Your task to perform on an android device: Empty the shopping cart on bestbuy.com. Search for macbook pro 15 inch on bestbuy.com, select the first entry, and add it to the cart. Image 0: 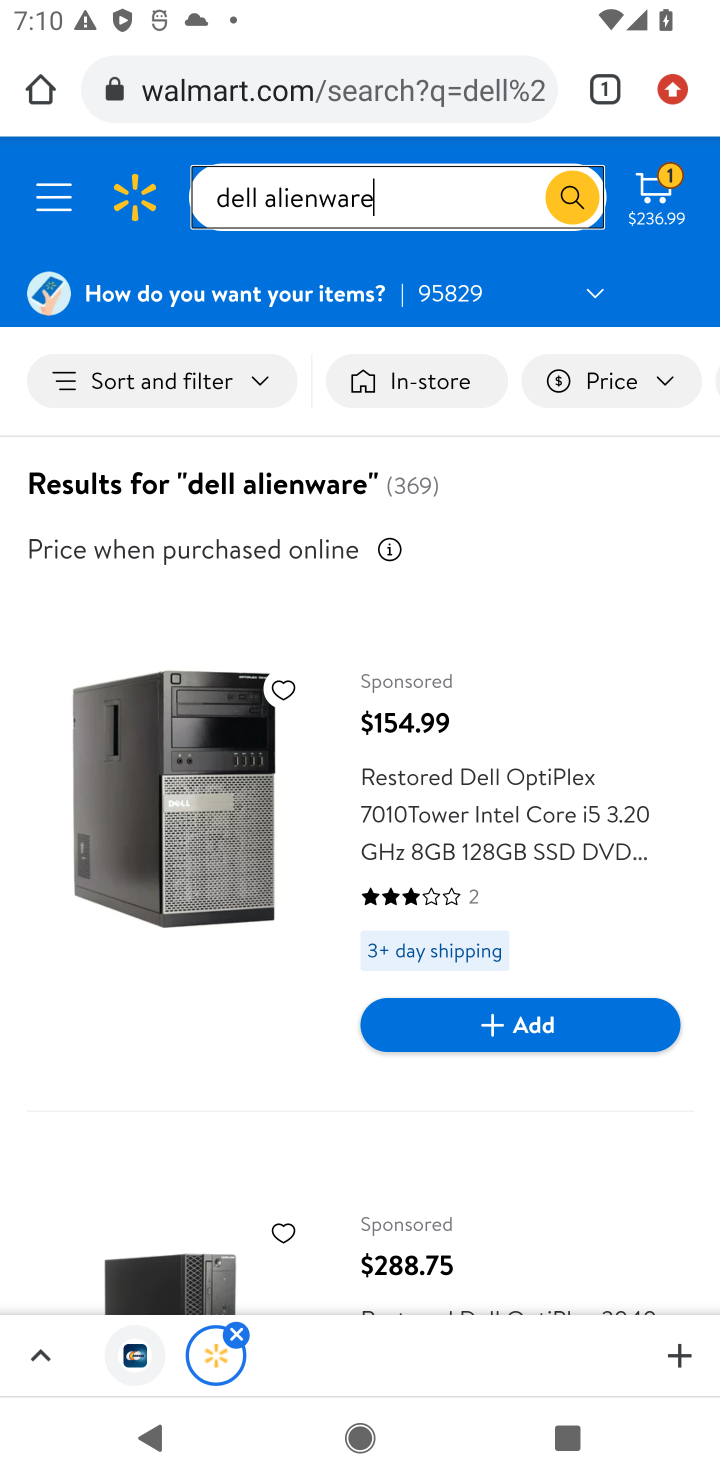
Step 0: click (290, 90)
Your task to perform on an android device: Empty the shopping cart on bestbuy.com. Search for macbook pro 15 inch on bestbuy.com, select the first entry, and add it to the cart. Image 1: 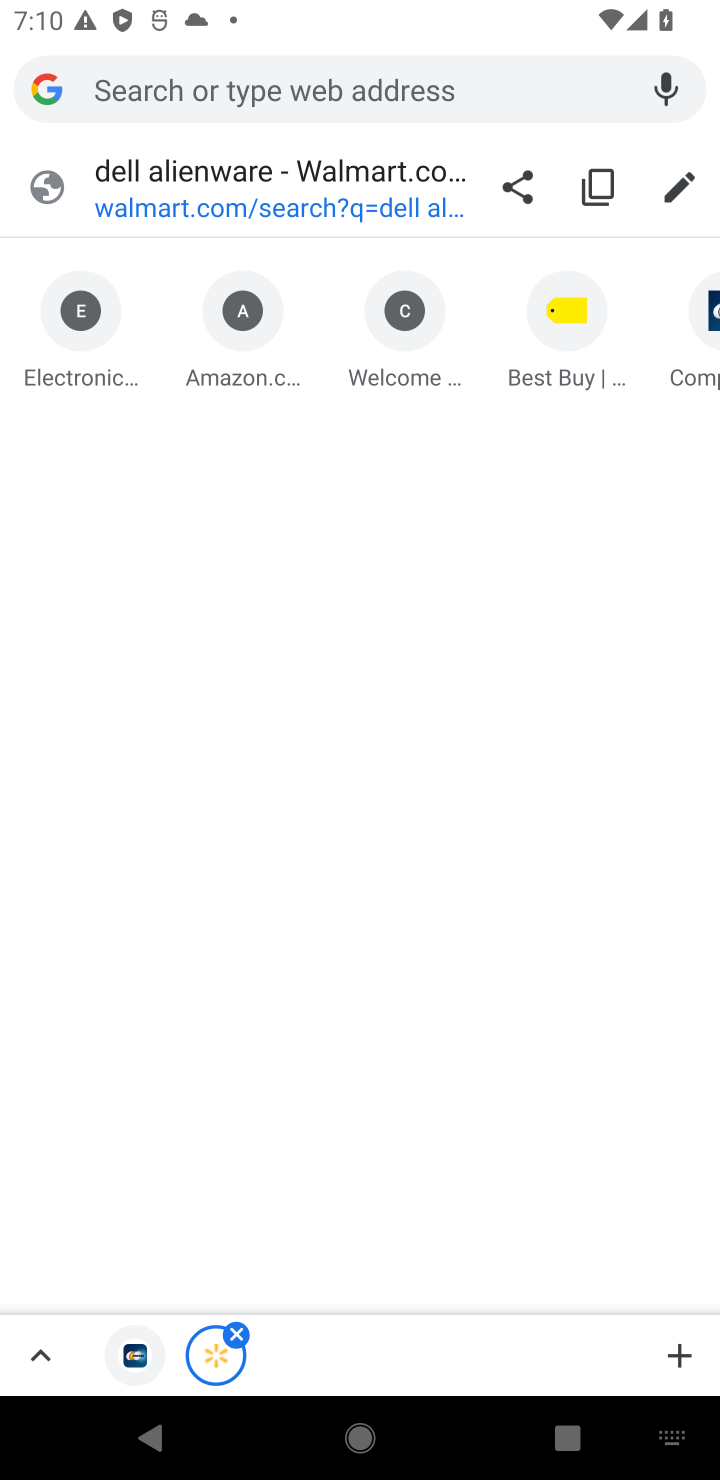
Step 1: click (530, 297)
Your task to perform on an android device: Empty the shopping cart on bestbuy.com. Search for macbook pro 15 inch on bestbuy.com, select the first entry, and add it to the cart. Image 2: 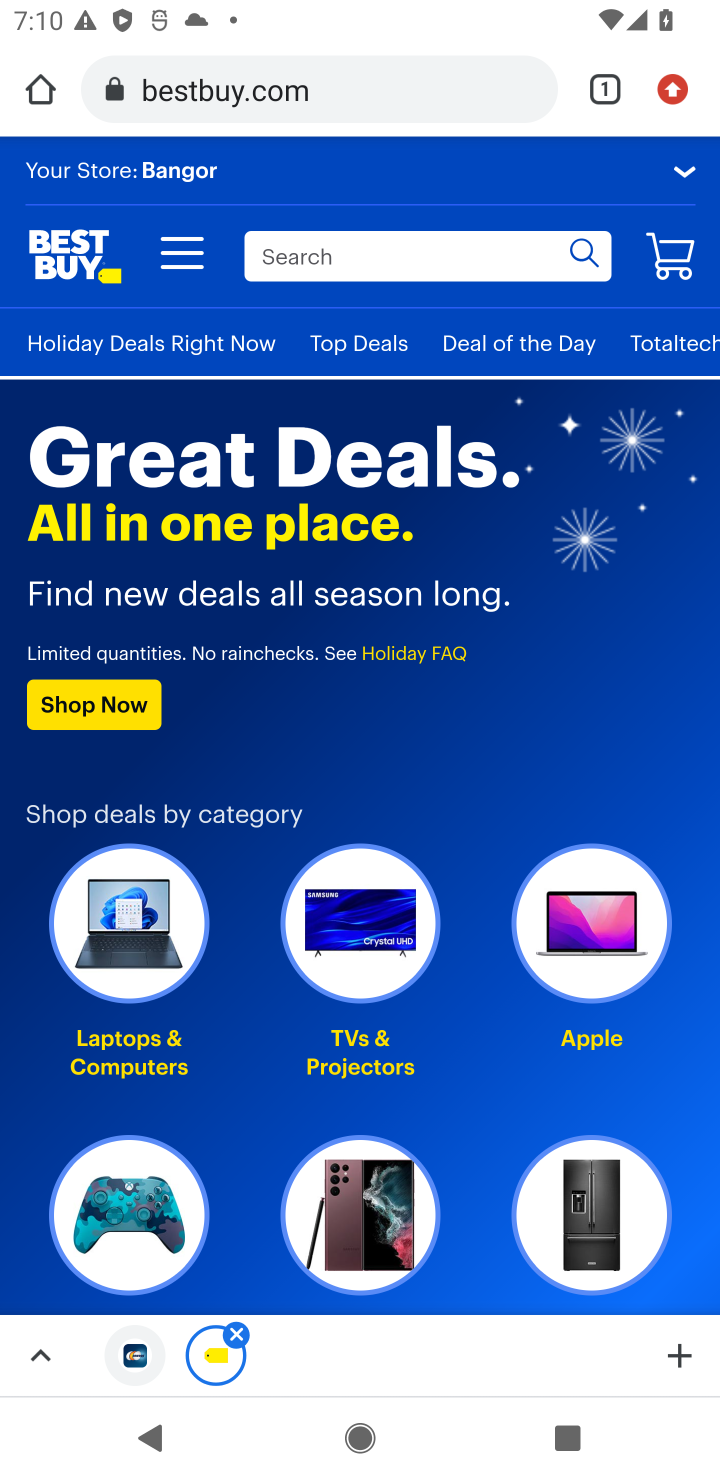
Step 2: click (677, 259)
Your task to perform on an android device: Empty the shopping cart on bestbuy.com. Search for macbook pro 15 inch on bestbuy.com, select the first entry, and add it to the cart. Image 3: 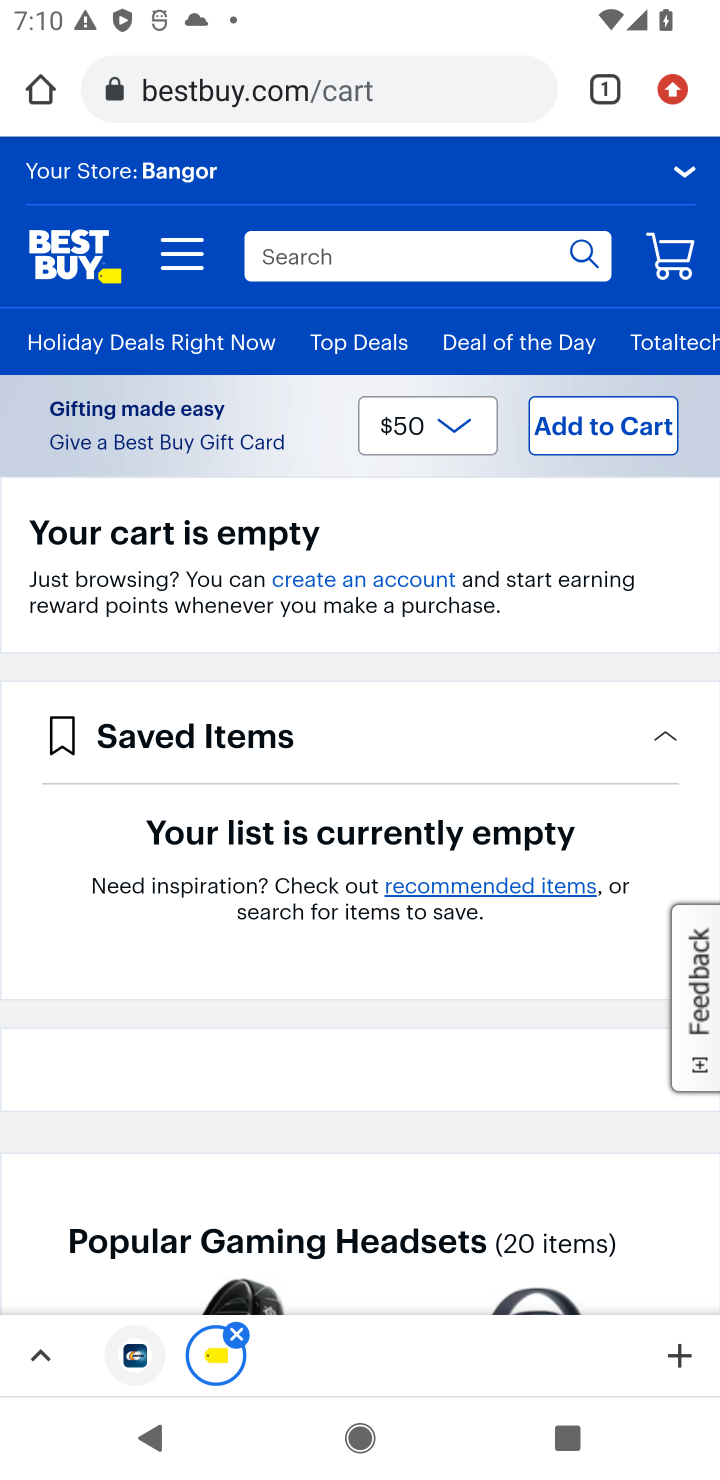
Step 3: click (332, 253)
Your task to perform on an android device: Empty the shopping cart on bestbuy.com. Search for macbook pro 15 inch on bestbuy.com, select the first entry, and add it to the cart. Image 4: 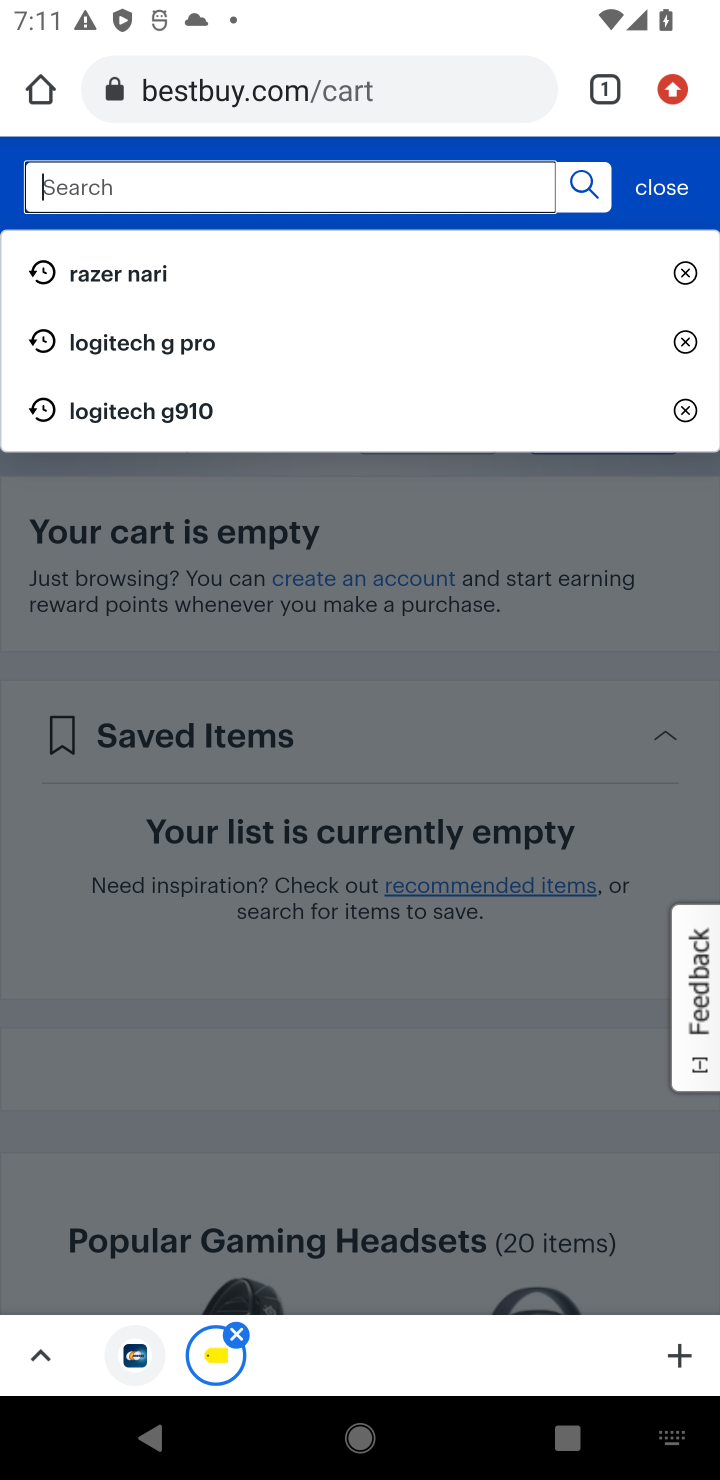
Step 4: type "macbook pro 15 inch"
Your task to perform on an android device: Empty the shopping cart on bestbuy.com. Search for macbook pro 15 inch on bestbuy.com, select the first entry, and add it to the cart. Image 5: 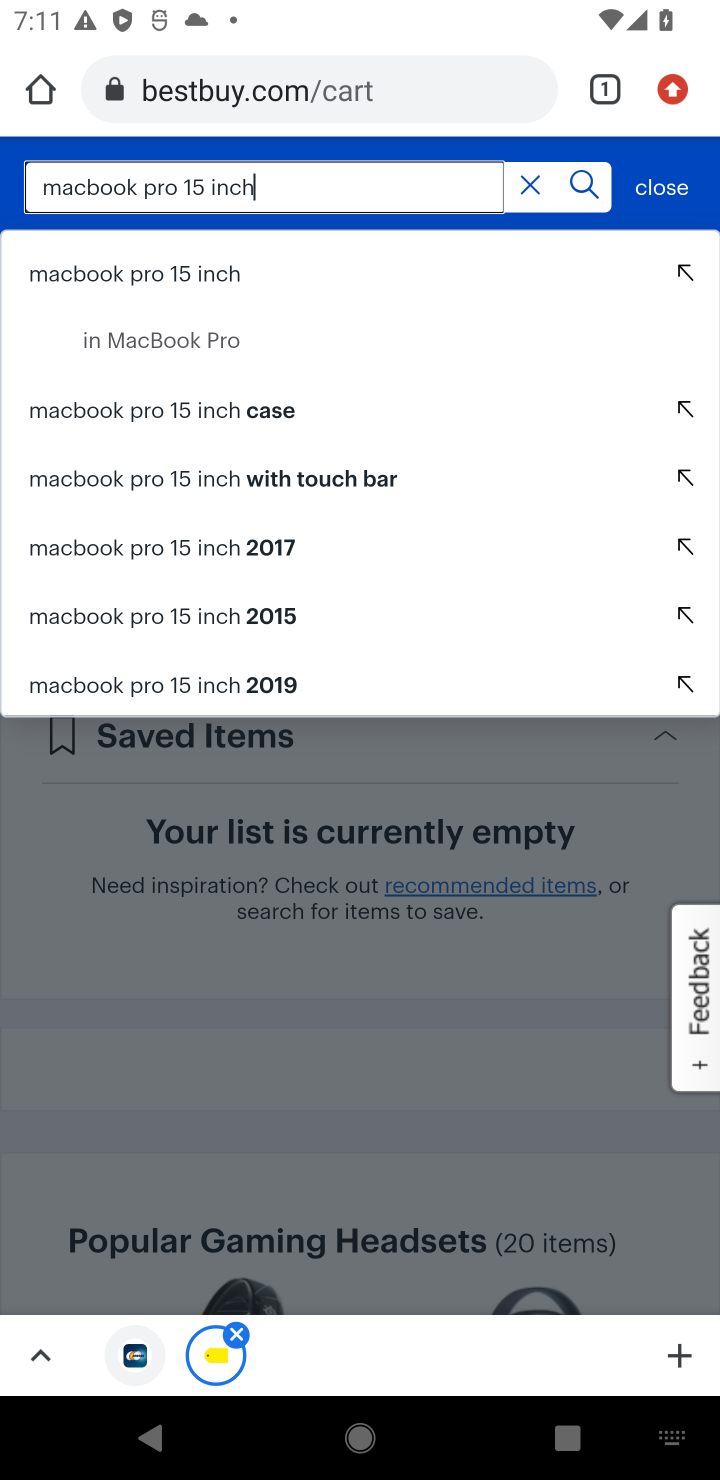
Step 5: click (93, 278)
Your task to perform on an android device: Empty the shopping cart on bestbuy.com. Search for macbook pro 15 inch on bestbuy.com, select the first entry, and add it to the cart. Image 6: 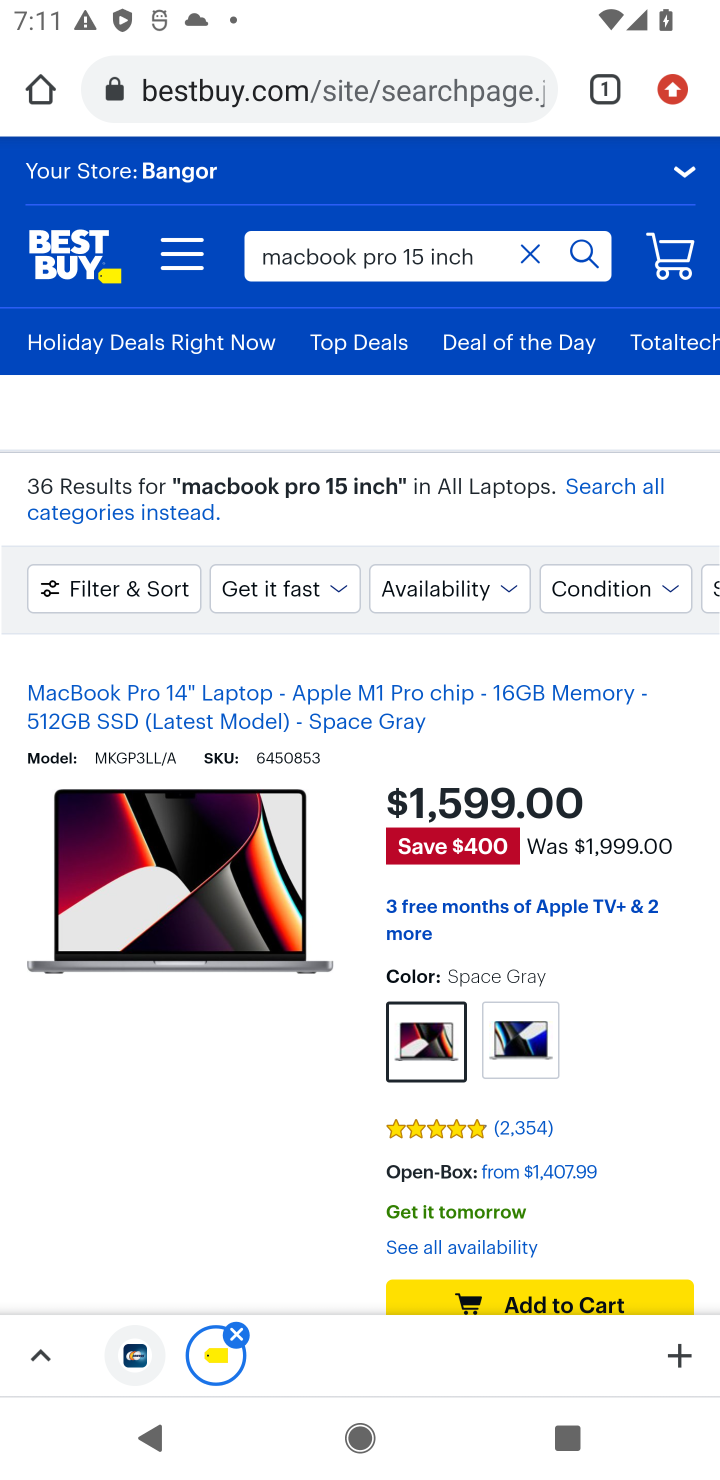
Step 6: task complete